Your task to perform on an android device: See recent photos Image 0: 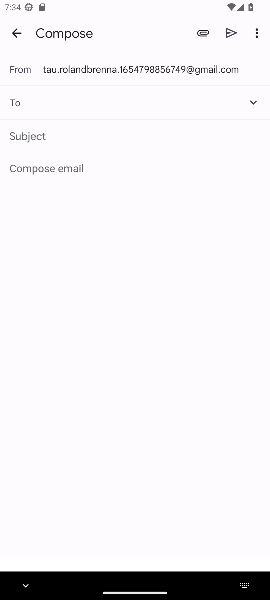
Step 0: press home button
Your task to perform on an android device: See recent photos Image 1: 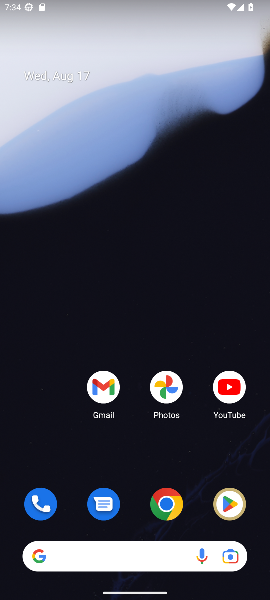
Step 1: drag from (137, 445) to (177, 202)
Your task to perform on an android device: See recent photos Image 2: 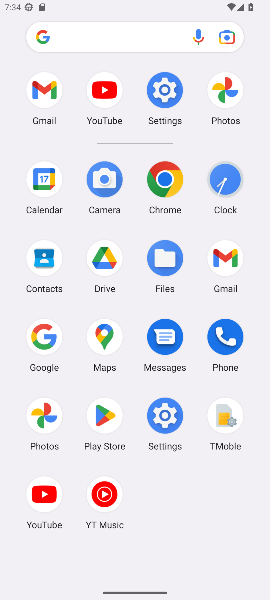
Step 2: click (229, 102)
Your task to perform on an android device: See recent photos Image 3: 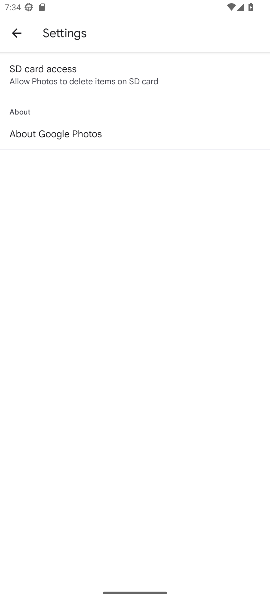
Step 3: press back button
Your task to perform on an android device: See recent photos Image 4: 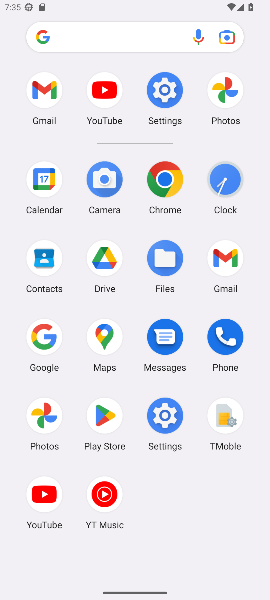
Step 4: click (226, 108)
Your task to perform on an android device: See recent photos Image 5: 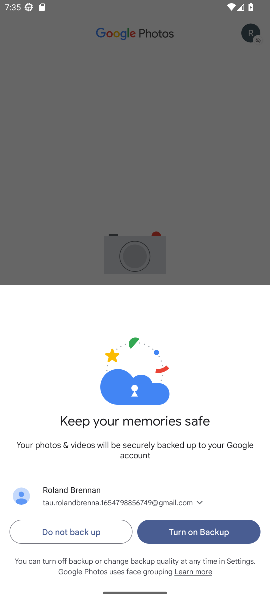
Step 5: click (225, 530)
Your task to perform on an android device: See recent photos Image 6: 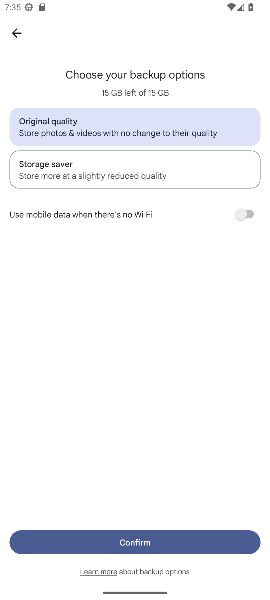
Step 6: click (21, 37)
Your task to perform on an android device: See recent photos Image 7: 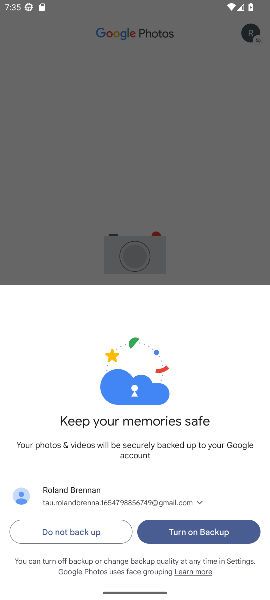
Step 7: click (89, 533)
Your task to perform on an android device: See recent photos Image 8: 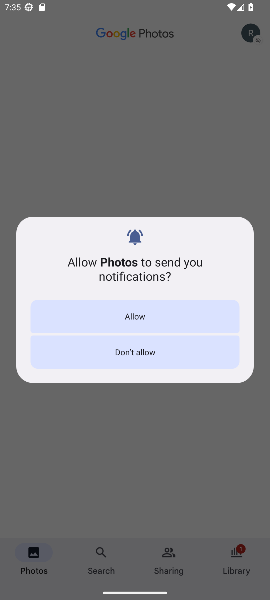
Step 8: click (149, 320)
Your task to perform on an android device: See recent photos Image 9: 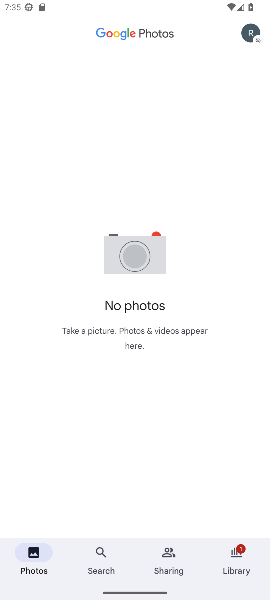
Step 9: task complete